Your task to perform on an android device: Empty the shopping cart on target. Add panasonic triple a to the cart on target Image 0: 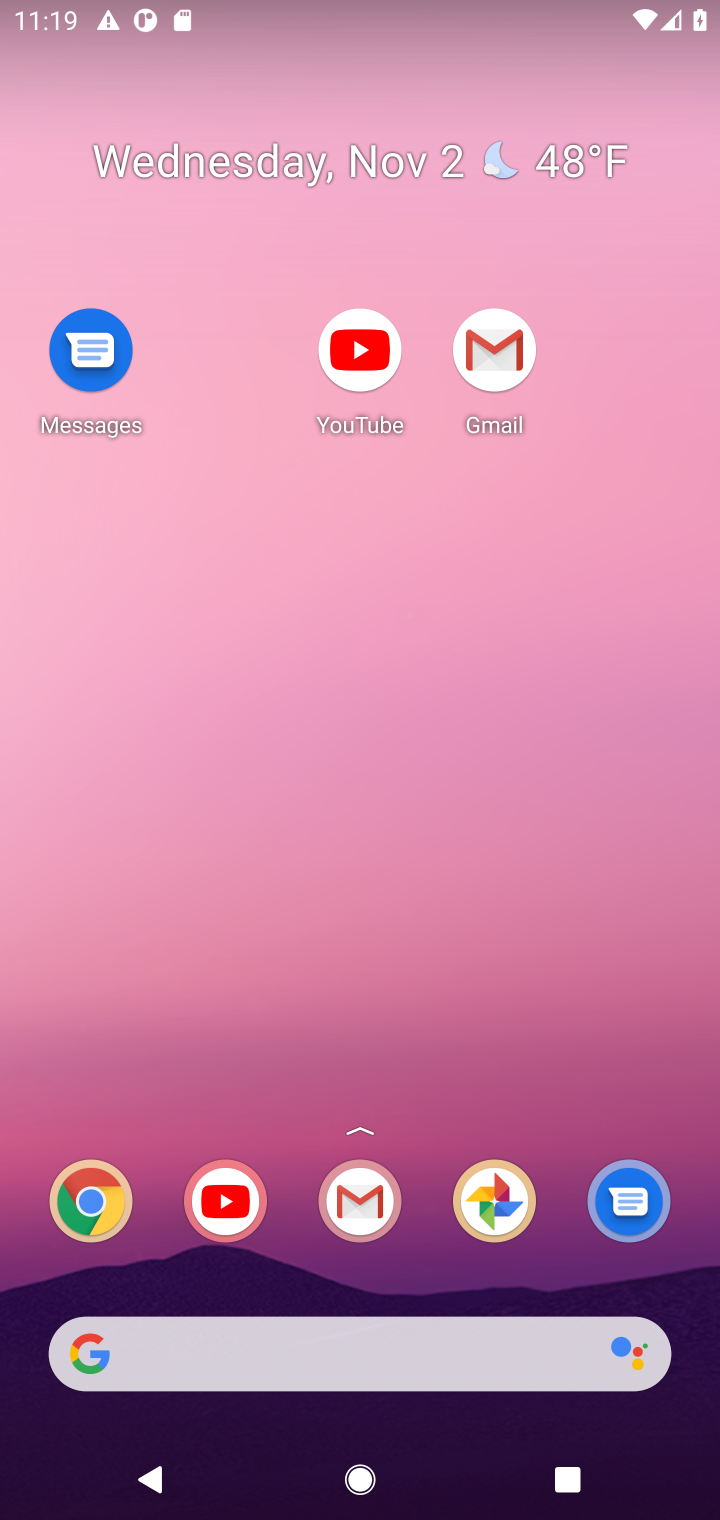
Step 0: drag from (420, 1280) to (343, 453)
Your task to perform on an android device: Empty the shopping cart on target. Add panasonic triple a to the cart on target Image 1: 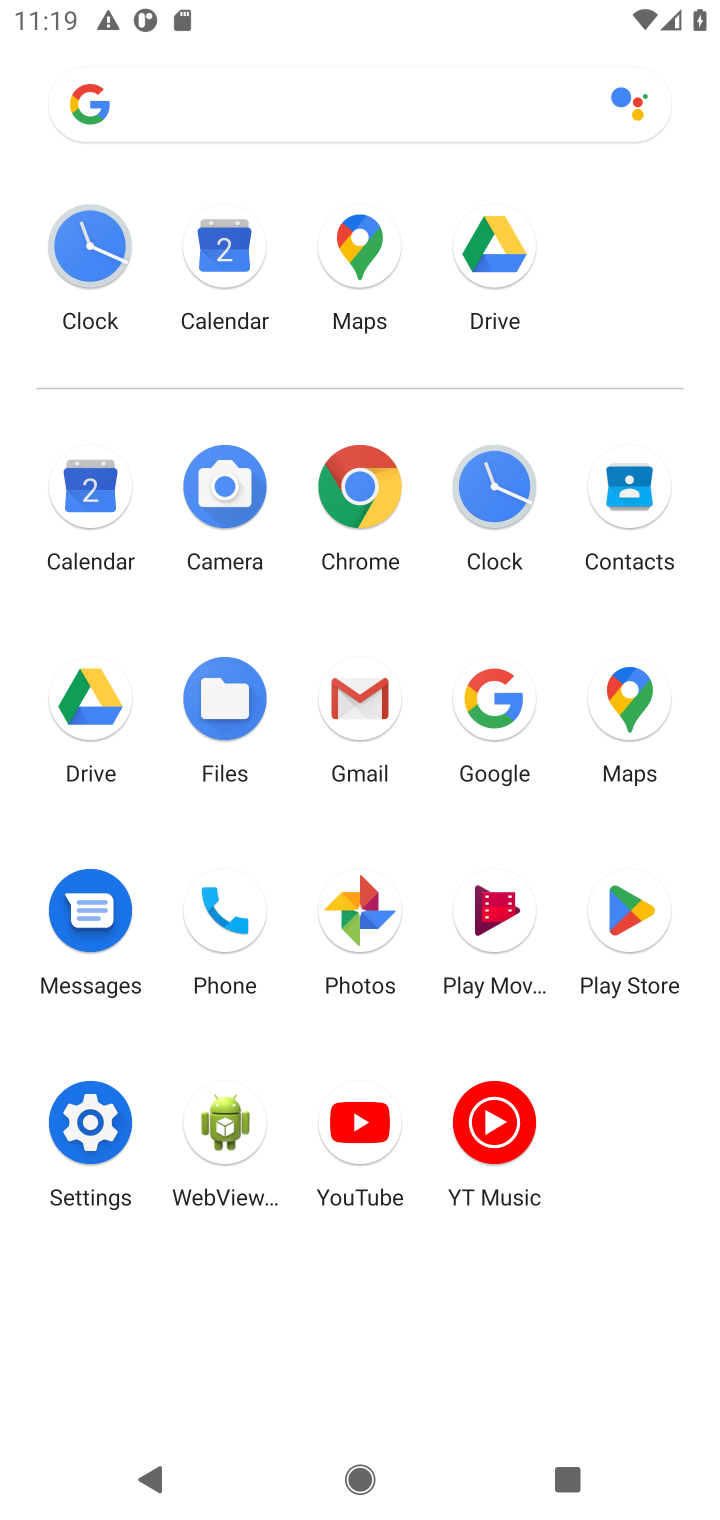
Step 1: click (362, 495)
Your task to perform on an android device: Empty the shopping cart on target. Add panasonic triple a to the cart on target Image 2: 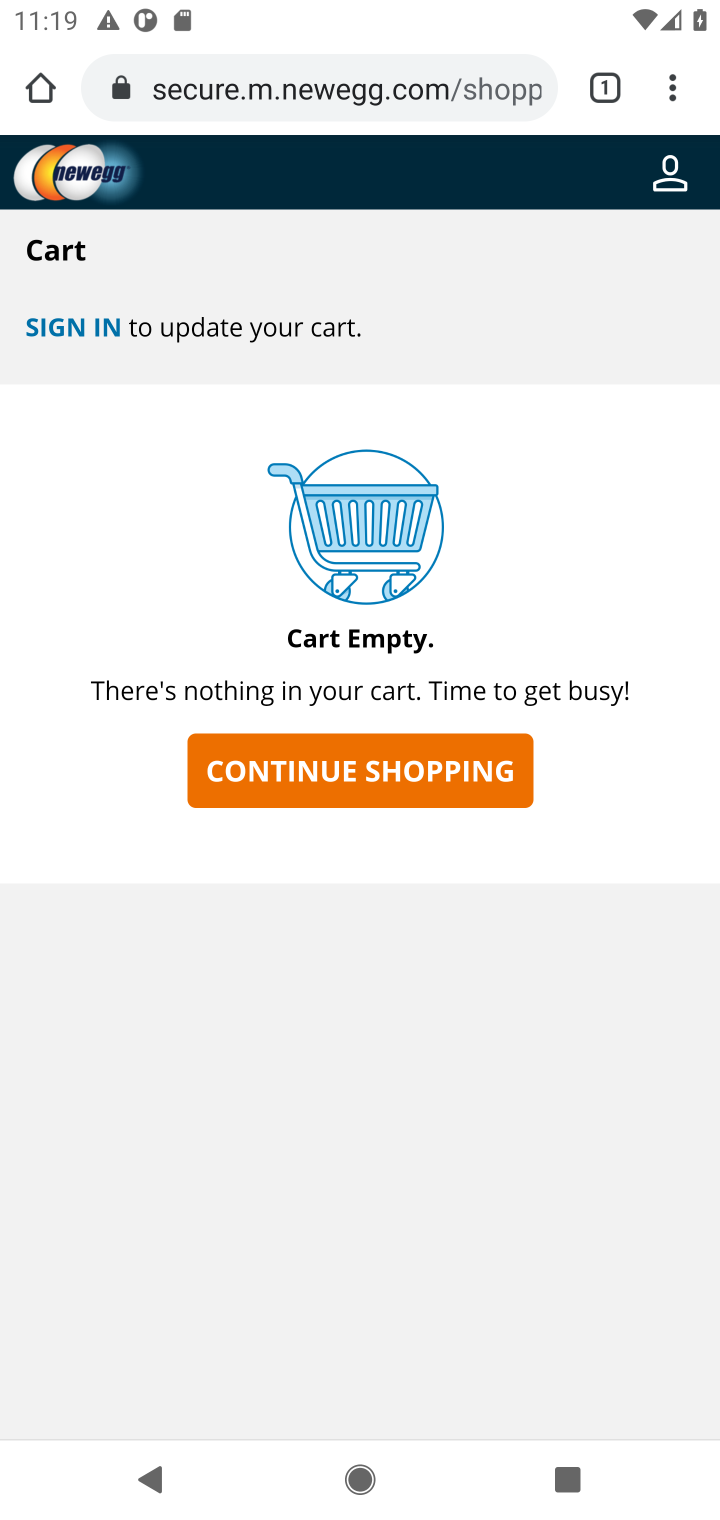
Step 2: click (433, 99)
Your task to perform on an android device: Empty the shopping cart on target. Add panasonic triple a to the cart on target Image 3: 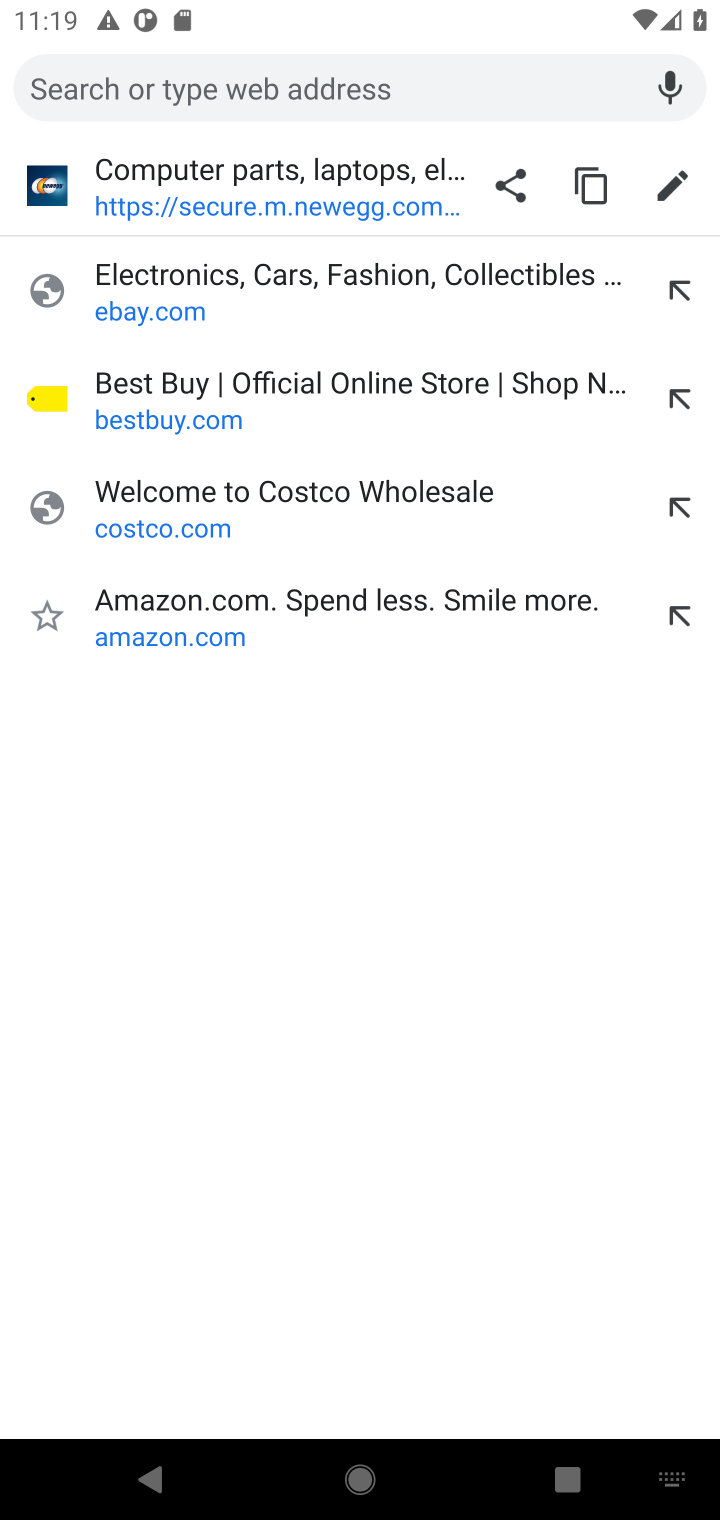
Step 3: type "target.com"
Your task to perform on an android device: Empty the shopping cart on target. Add panasonic triple a to the cart on target Image 4: 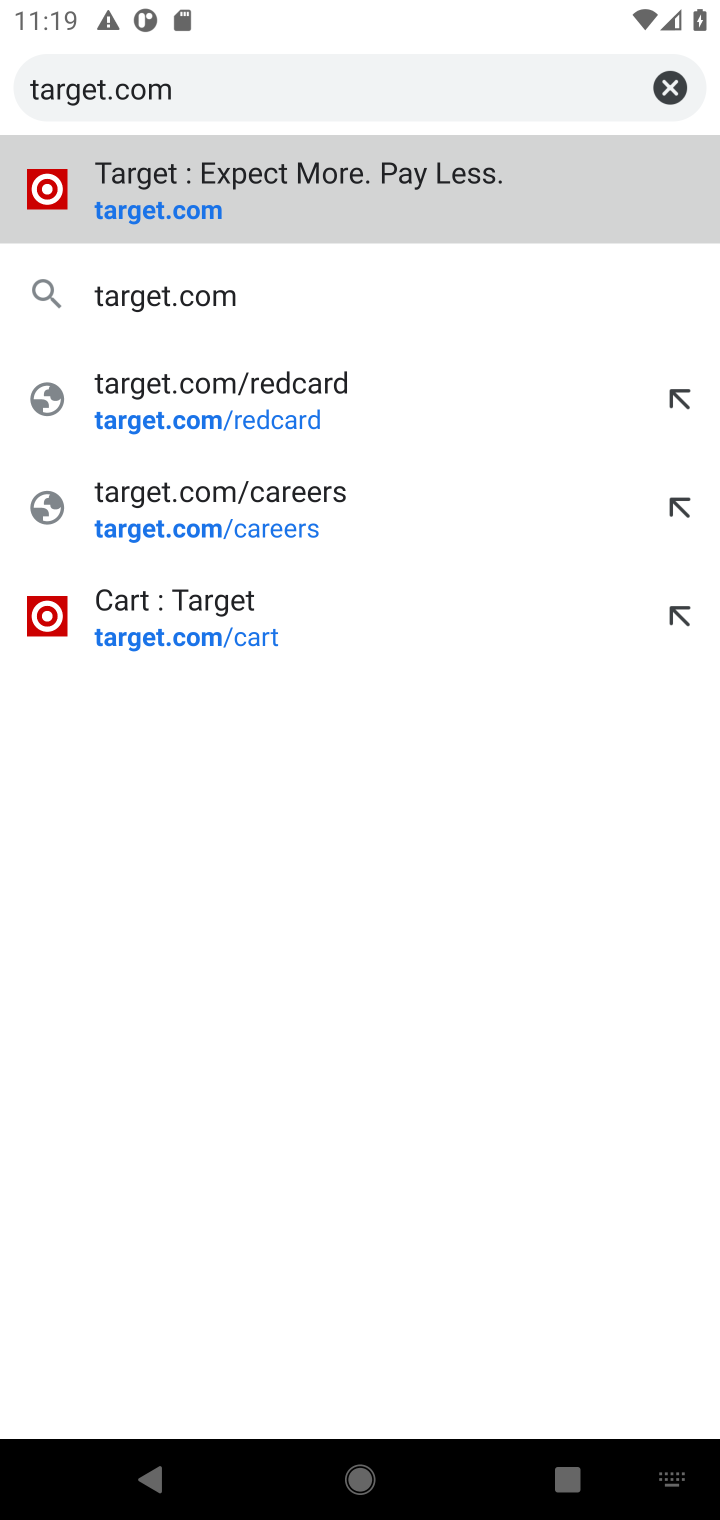
Step 4: press enter
Your task to perform on an android device: Empty the shopping cart on target. Add panasonic triple a to the cart on target Image 5: 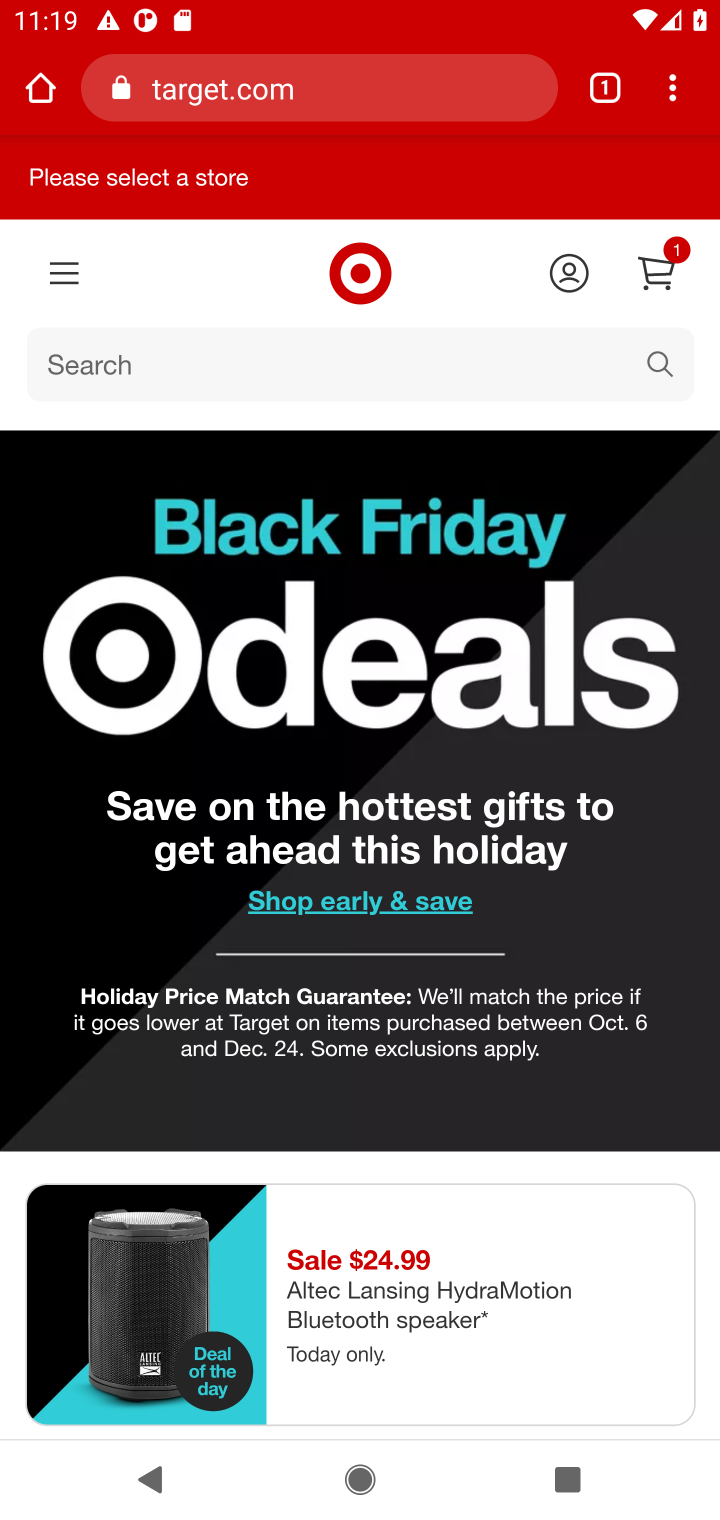
Step 5: click (652, 270)
Your task to perform on an android device: Empty the shopping cart on target. Add panasonic triple a to the cart on target Image 6: 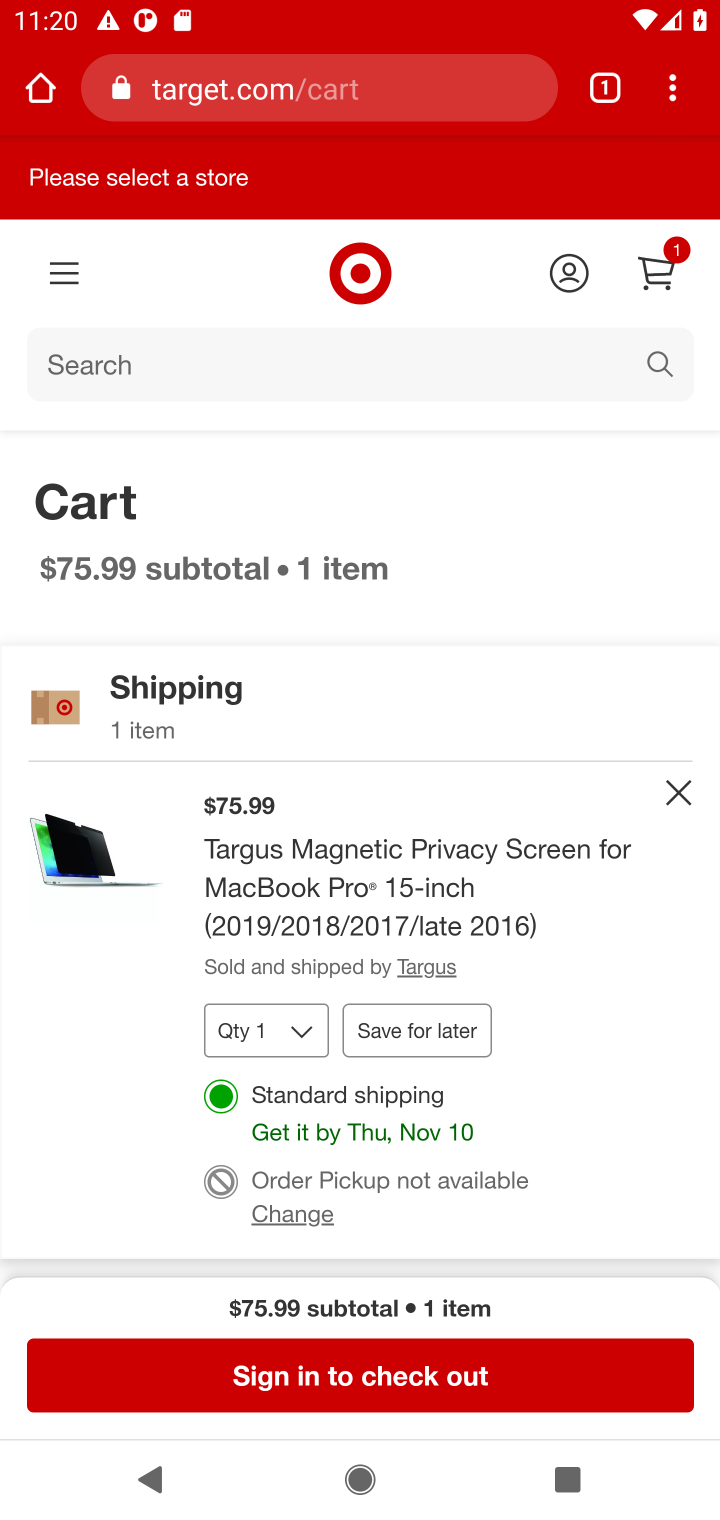
Step 6: click (674, 795)
Your task to perform on an android device: Empty the shopping cart on target. Add panasonic triple a to the cart on target Image 7: 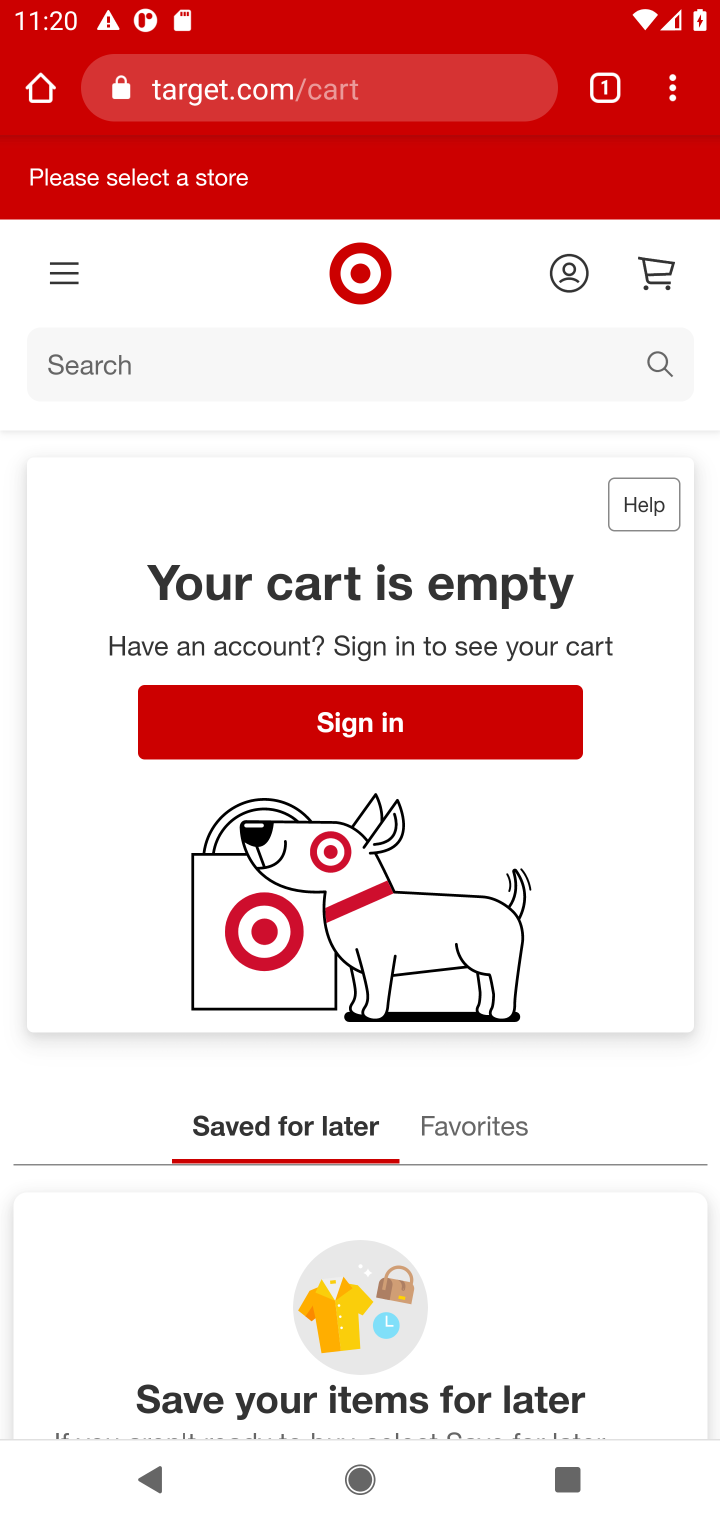
Step 7: click (339, 354)
Your task to perform on an android device: Empty the shopping cart on target. Add panasonic triple a to the cart on target Image 8: 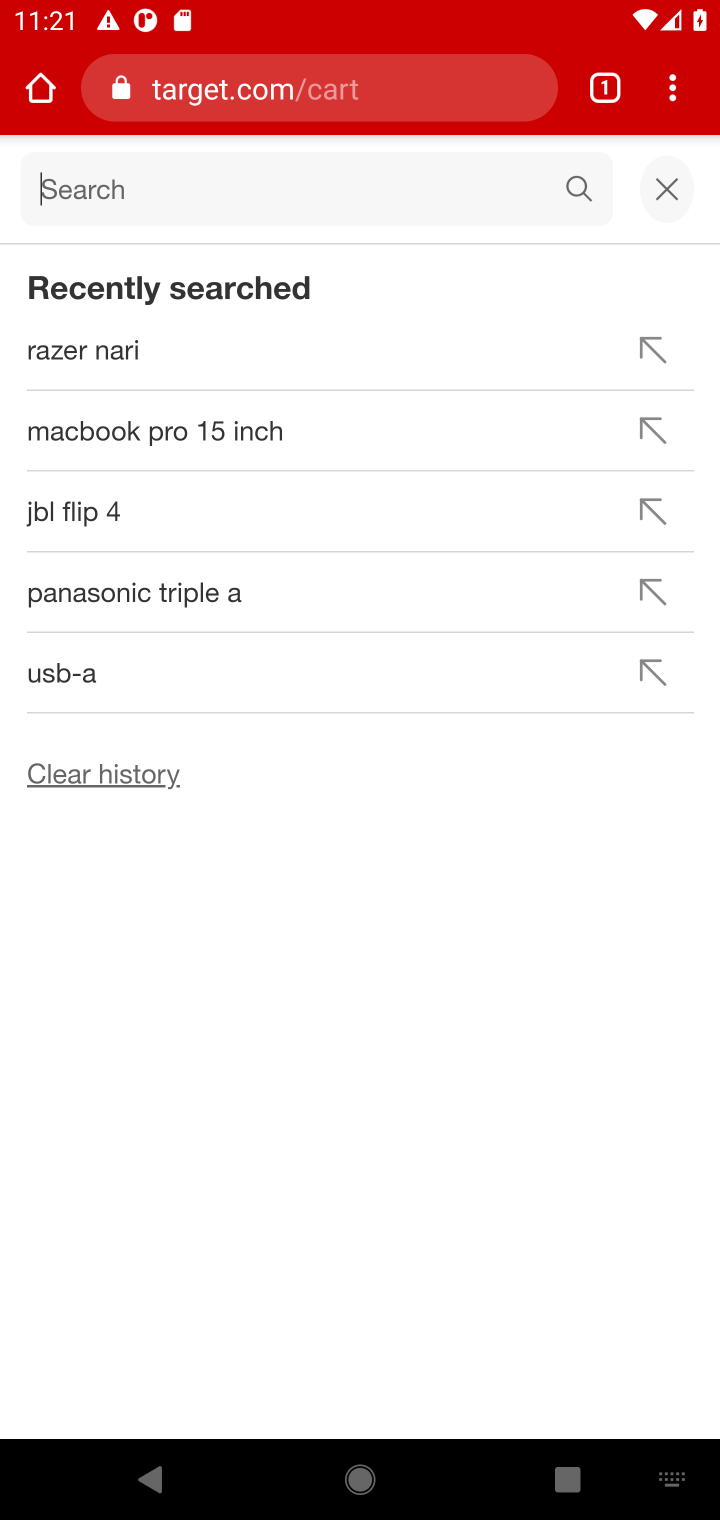
Step 8: type "panasonic triple a"
Your task to perform on an android device: Empty the shopping cart on target. Add panasonic triple a to the cart on target Image 9: 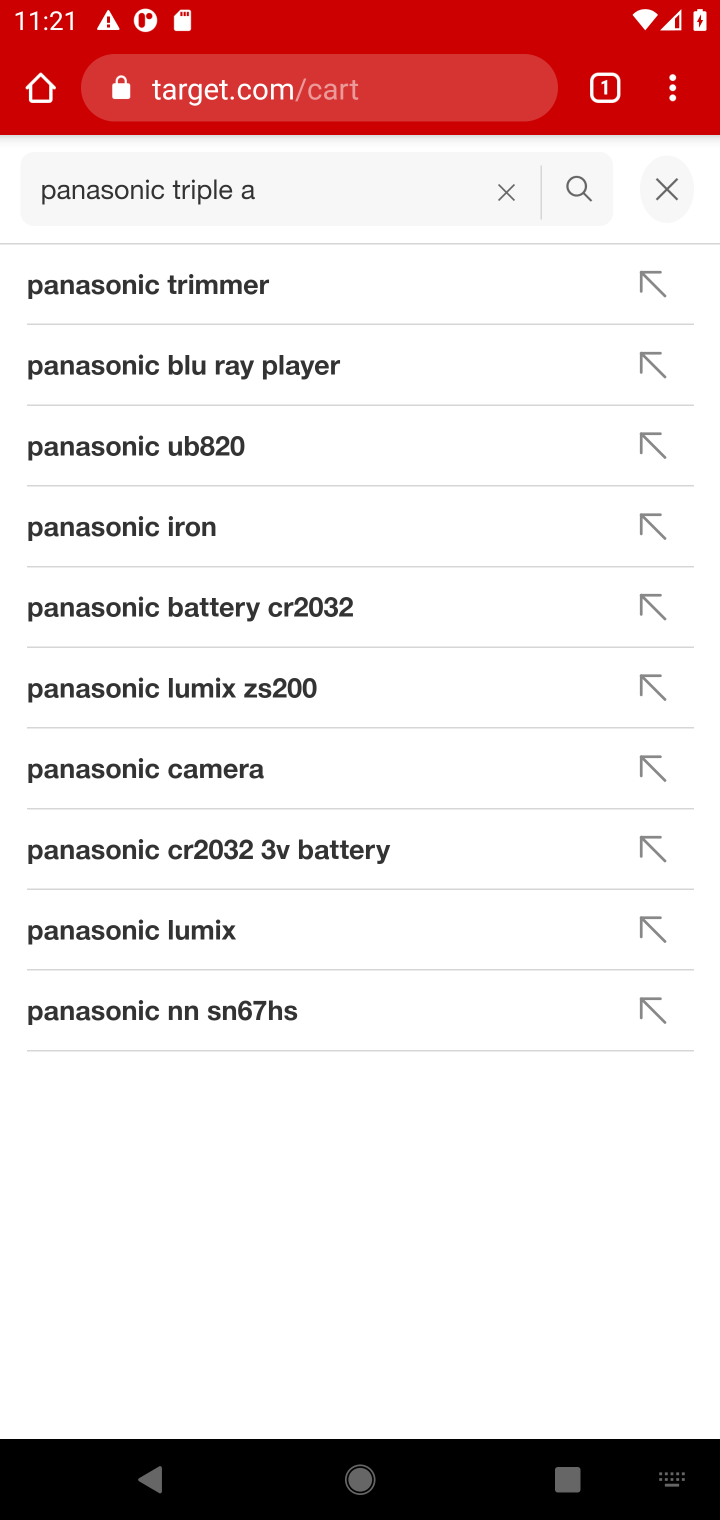
Step 9: press enter
Your task to perform on an android device: Empty the shopping cart on target. Add panasonic triple a to the cart on target Image 10: 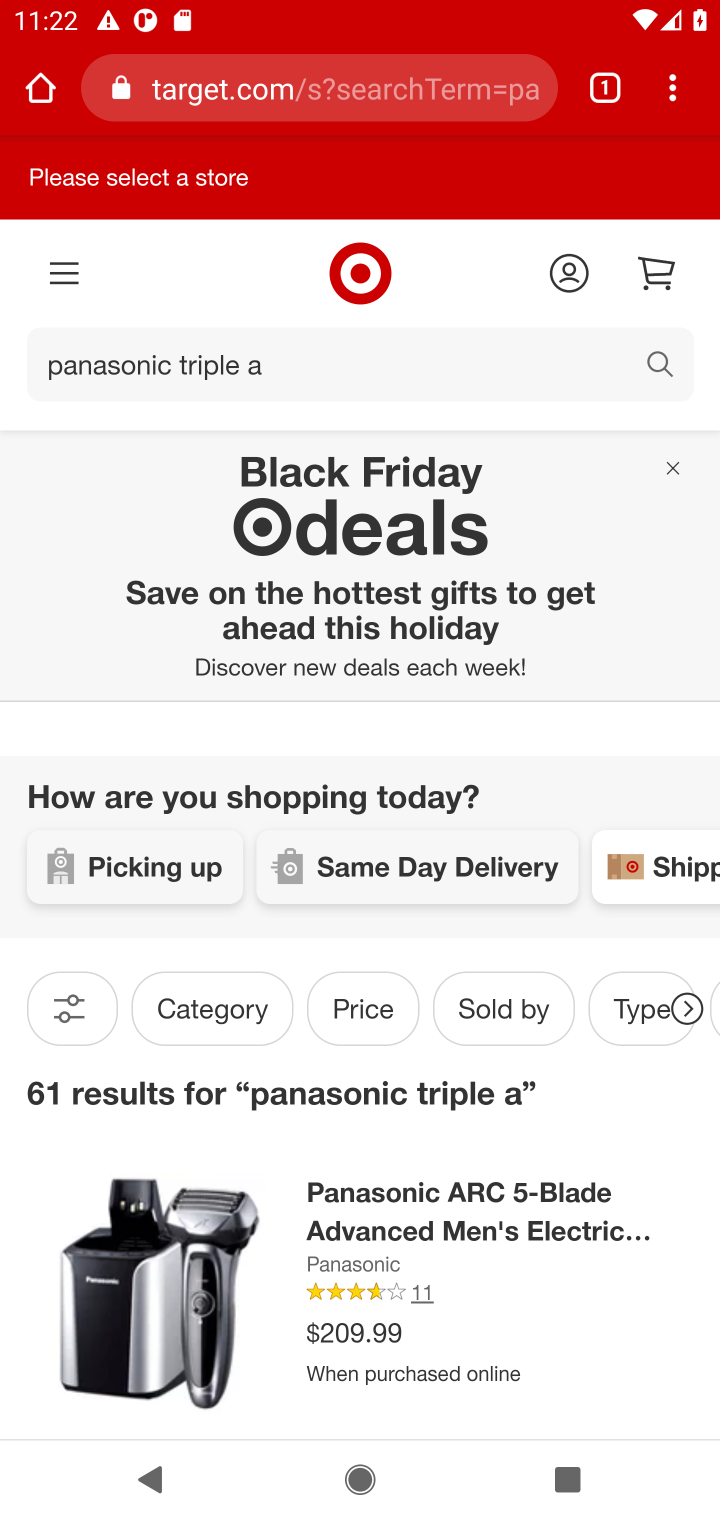
Step 10: drag from (430, 1268) to (335, 417)
Your task to perform on an android device: Empty the shopping cart on target. Add panasonic triple a to the cart on target Image 11: 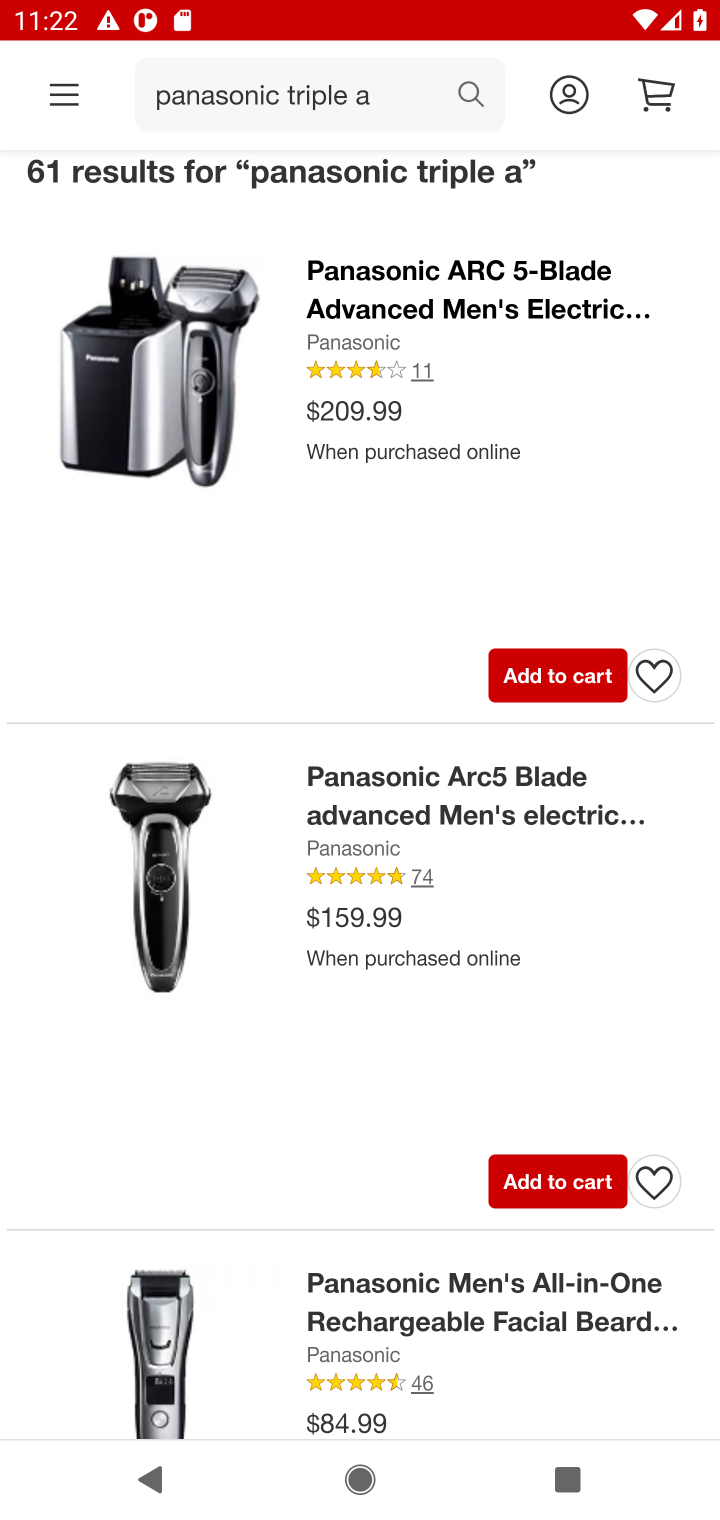
Step 11: drag from (395, 1280) to (419, 764)
Your task to perform on an android device: Empty the shopping cart on target. Add panasonic triple a to the cart on target Image 12: 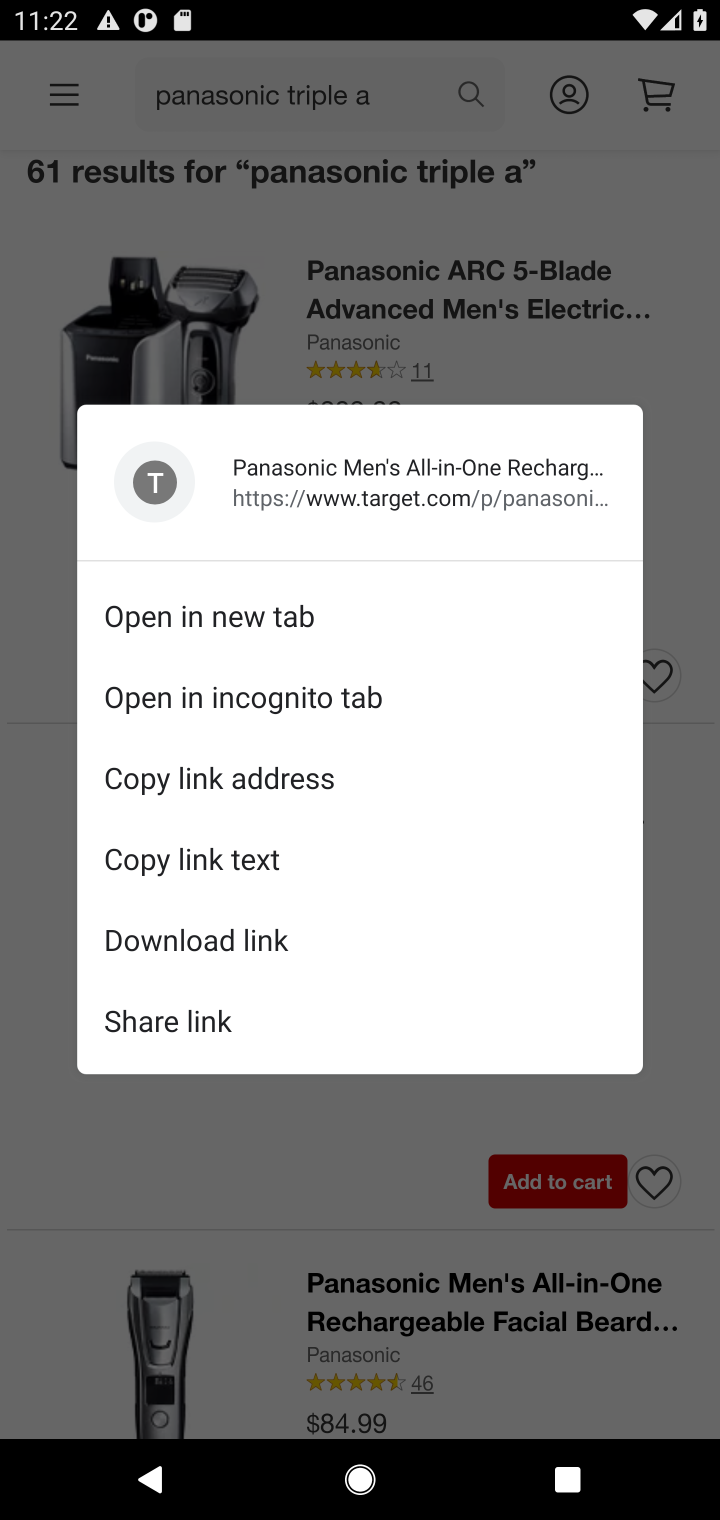
Step 12: click (364, 265)
Your task to perform on an android device: Empty the shopping cart on target. Add panasonic triple a to the cart on target Image 13: 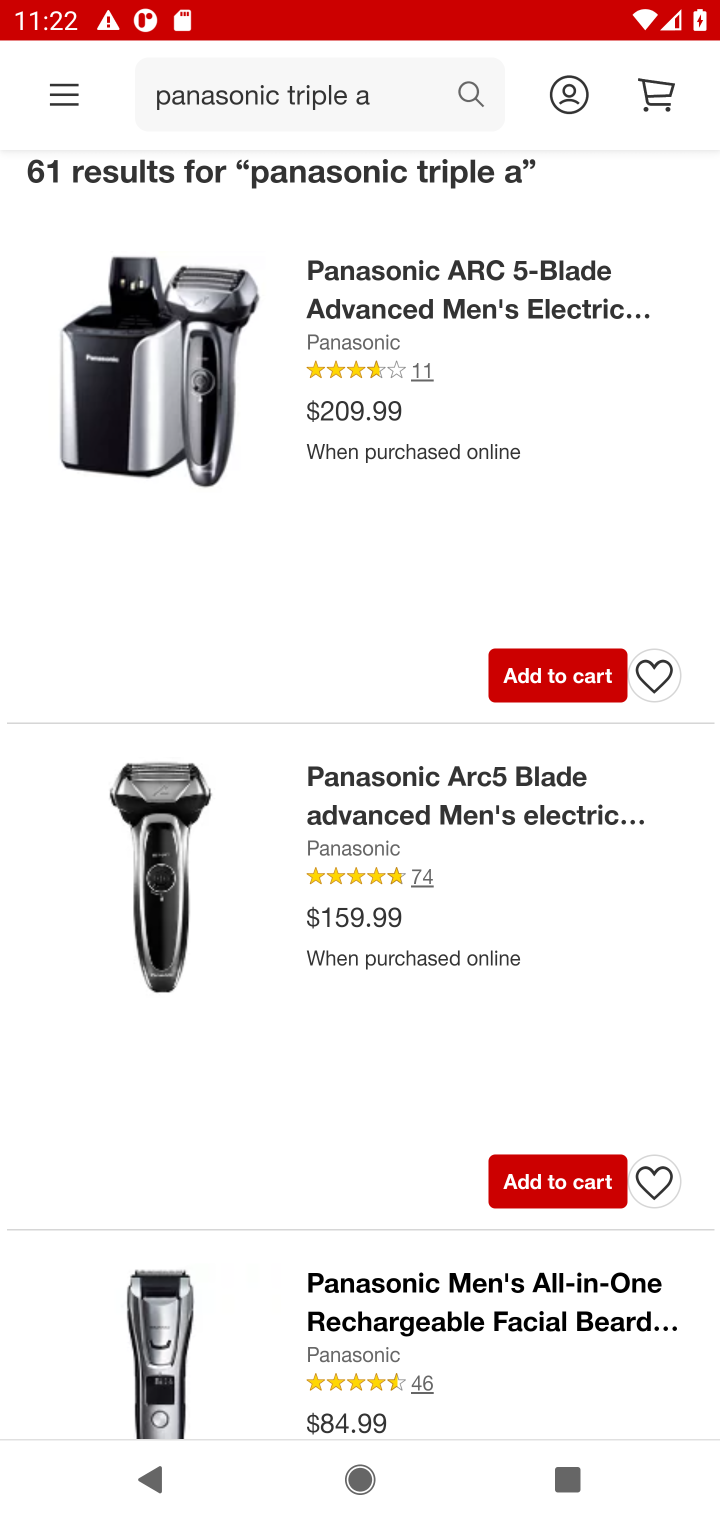
Step 13: drag from (338, 1247) to (362, 773)
Your task to perform on an android device: Empty the shopping cart on target. Add panasonic triple a to the cart on target Image 14: 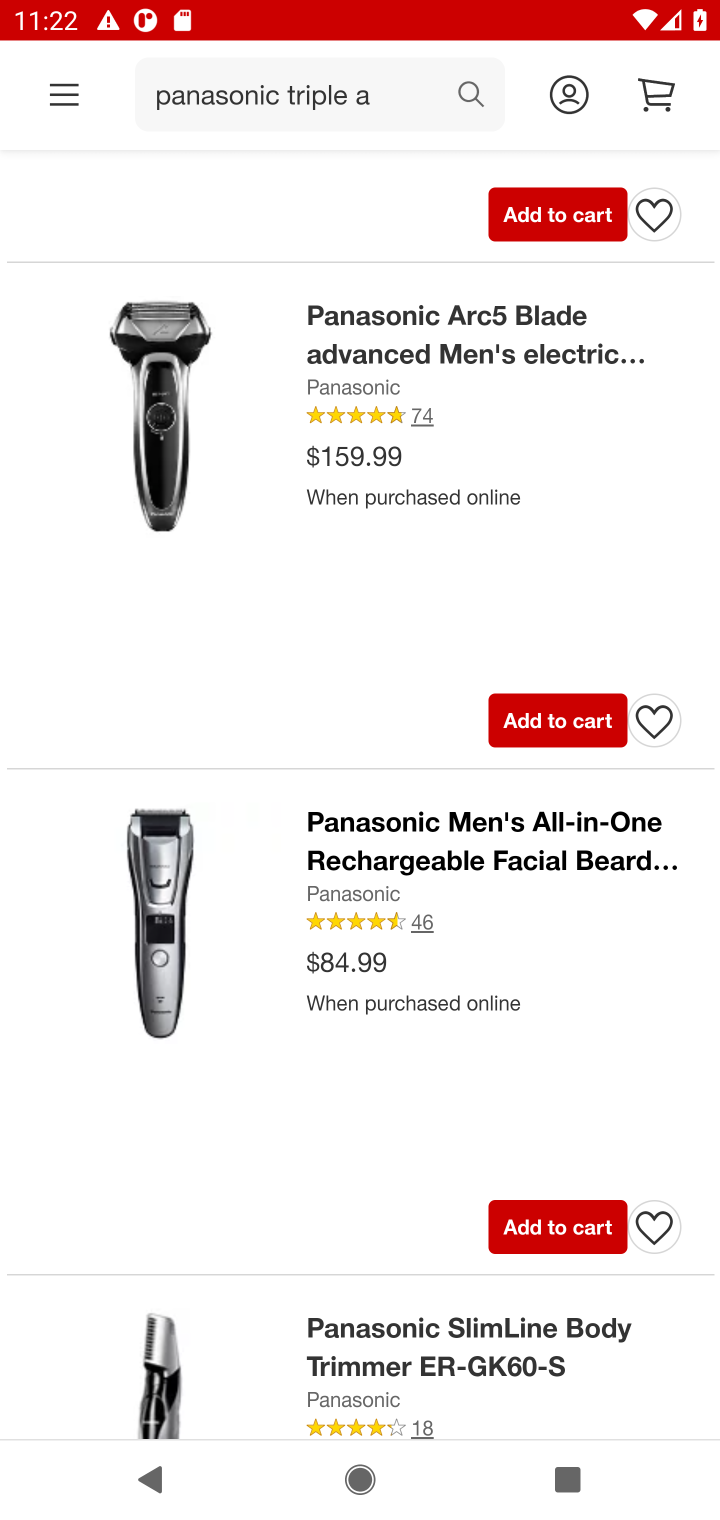
Step 14: drag from (393, 1154) to (369, 559)
Your task to perform on an android device: Empty the shopping cart on target. Add panasonic triple a to the cart on target Image 15: 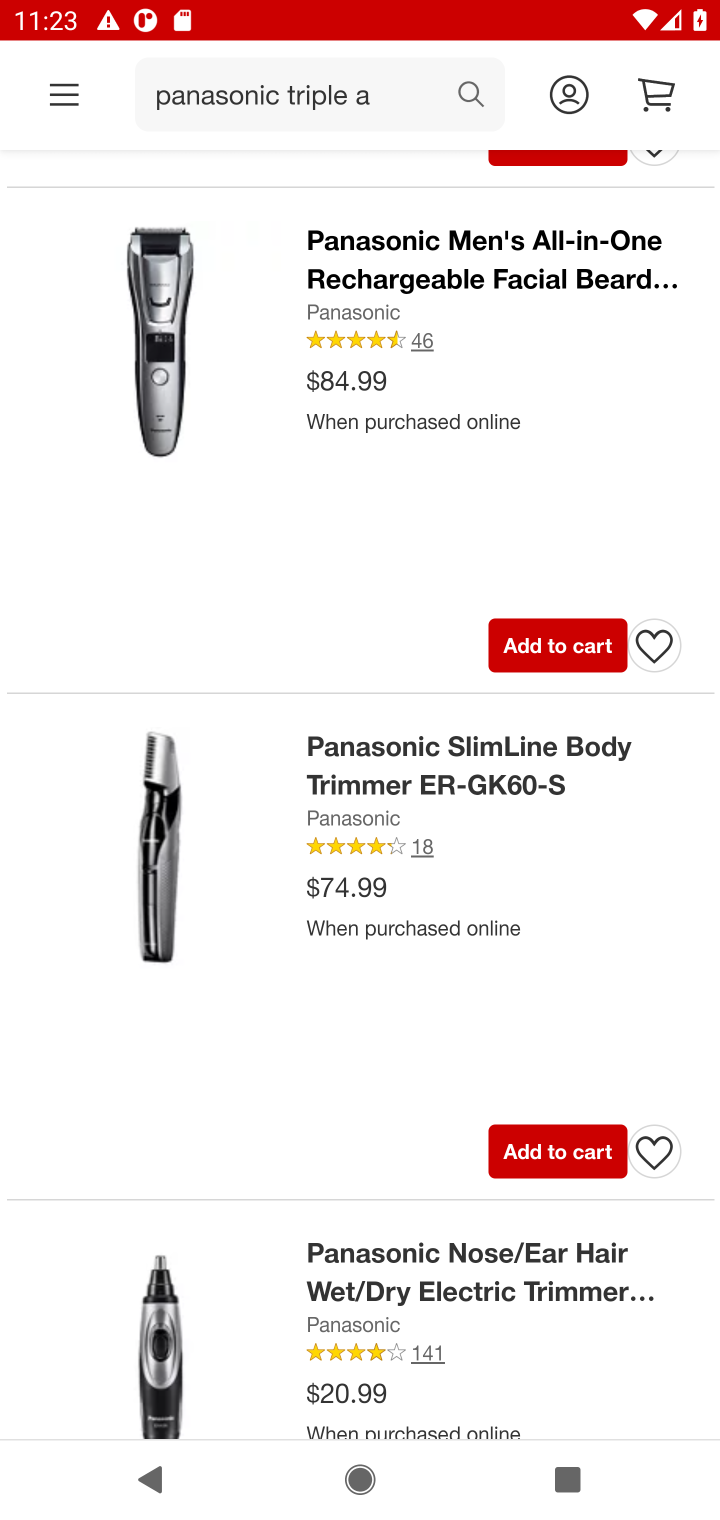
Step 15: drag from (502, 365) to (296, 1465)
Your task to perform on an android device: Empty the shopping cart on target. Add panasonic triple a to the cart on target Image 16: 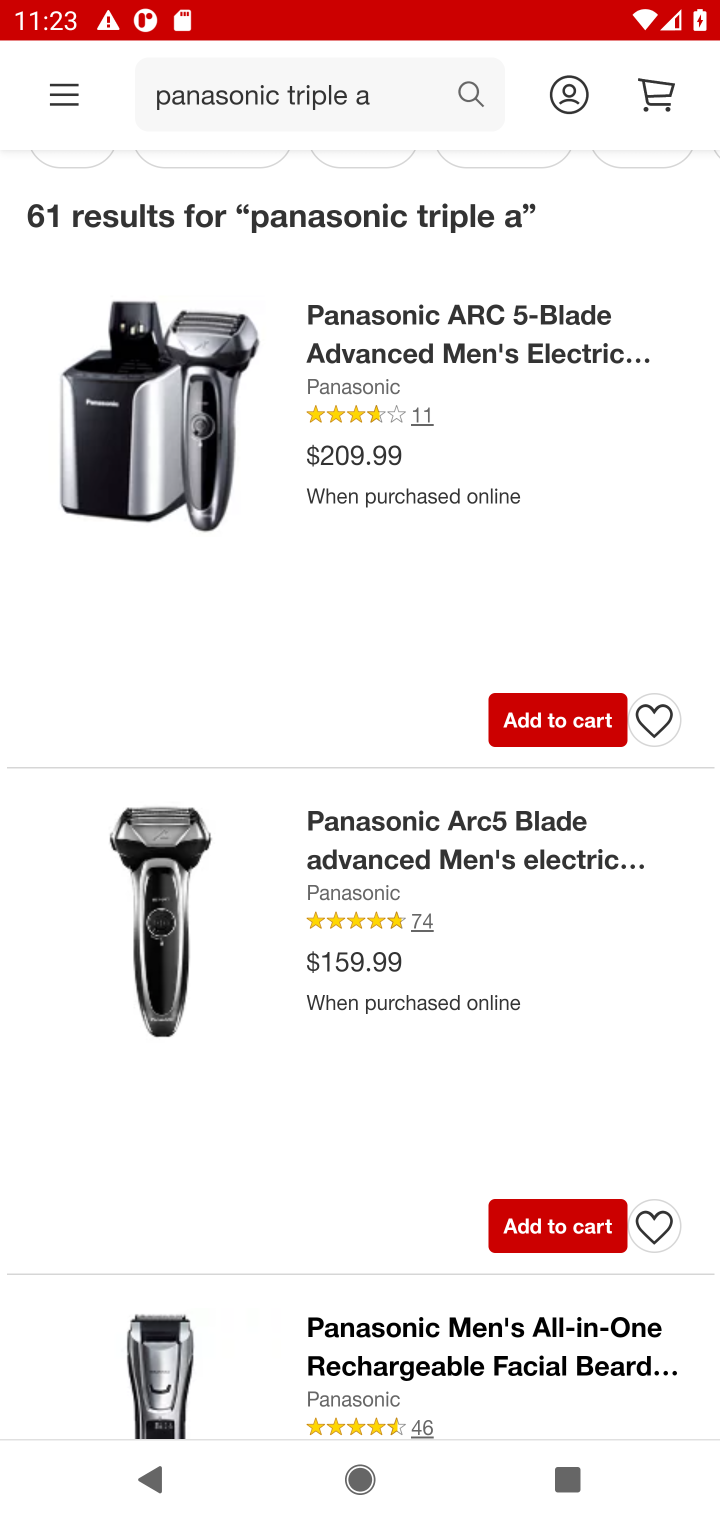
Step 16: click (389, 306)
Your task to perform on an android device: Empty the shopping cart on target. Add panasonic triple a to the cart on target Image 17: 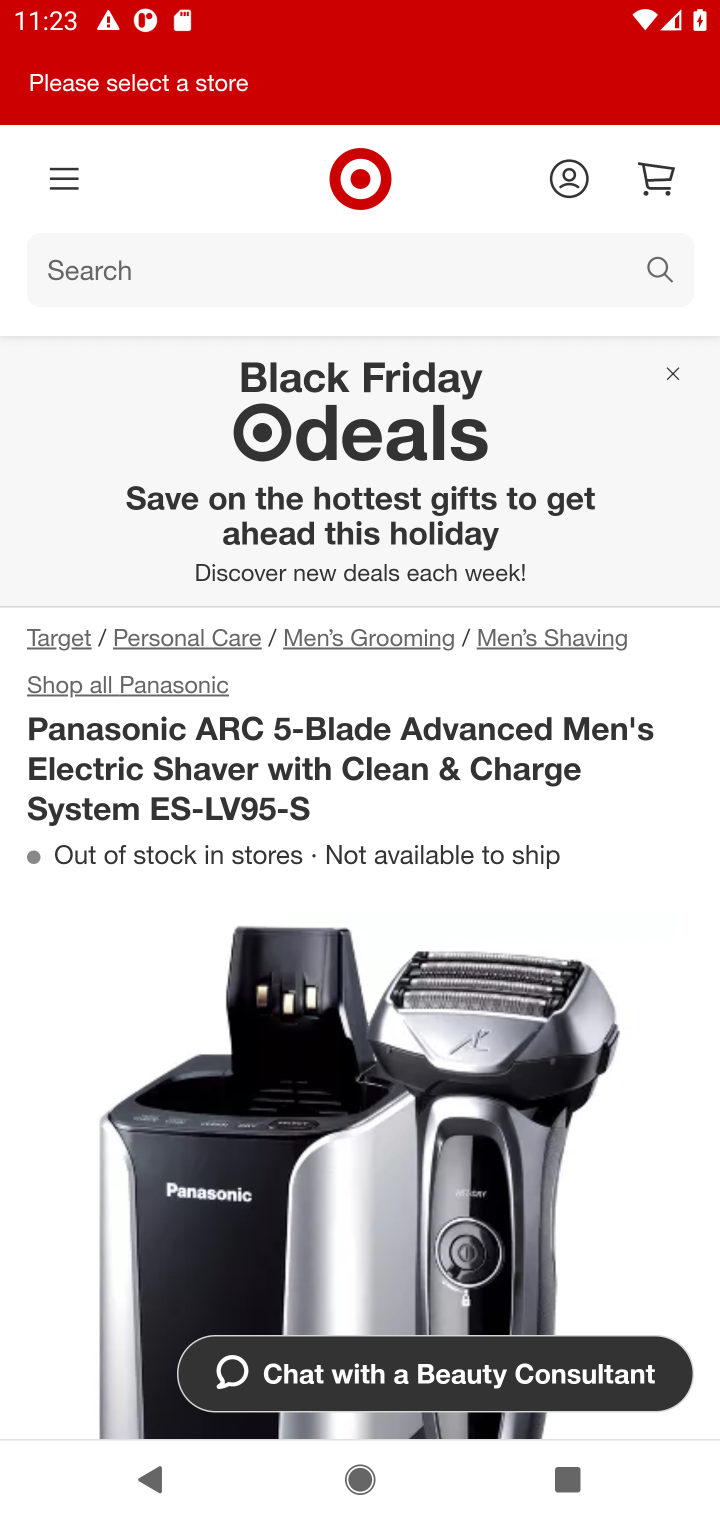
Step 17: task complete